Your task to perform on an android device: Go to notification settings Image 0: 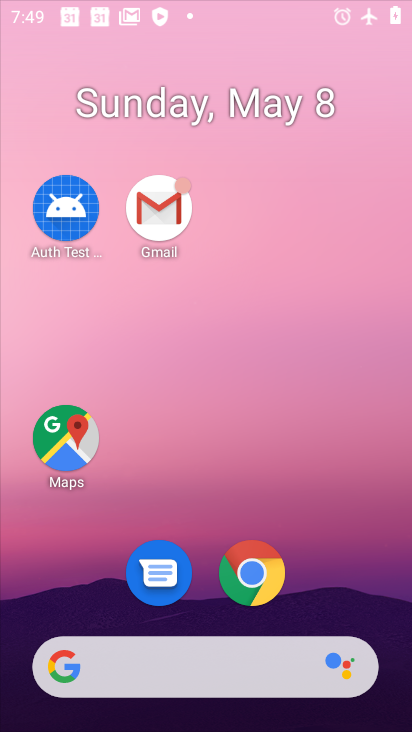
Step 0: click (47, 425)
Your task to perform on an android device: Go to notification settings Image 1: 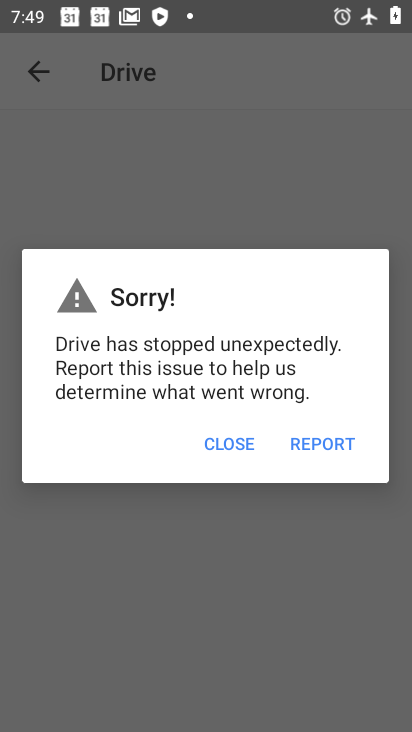
Step 1: click (69, 443)
Your task to perform on an android device: Go to notification settings Image 2: 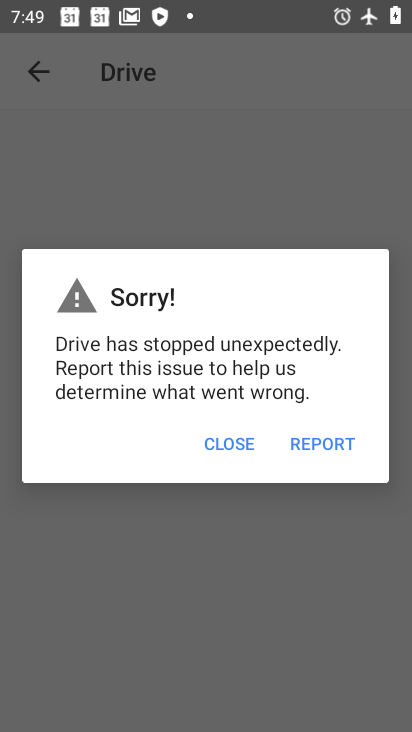
Step 2: click (230, 442)
Your task to perform on an android device: Go to notification settings Image 3: 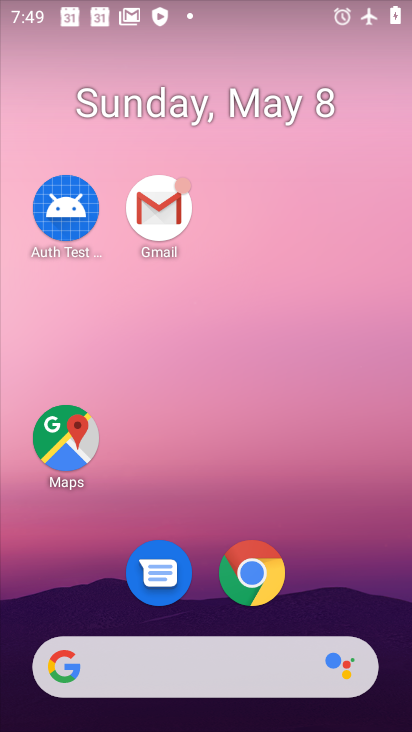
Step 3: click (226, 440)
Your task to perform on an android device: Go to notification settings Image 4: 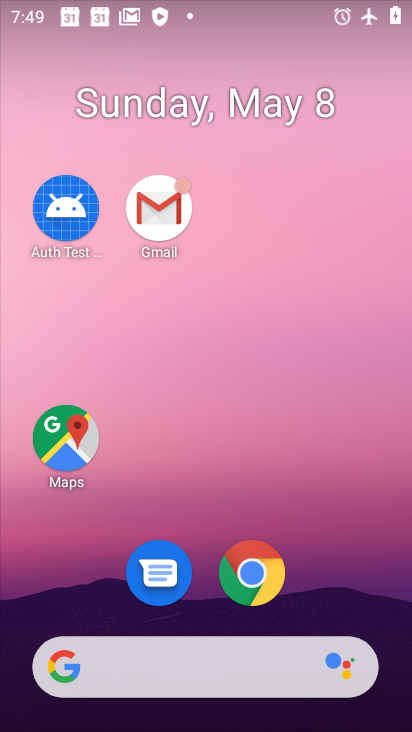
Step 4: click (37, 86)
Your task to perform on an android device: Go to notification settings Image 5: 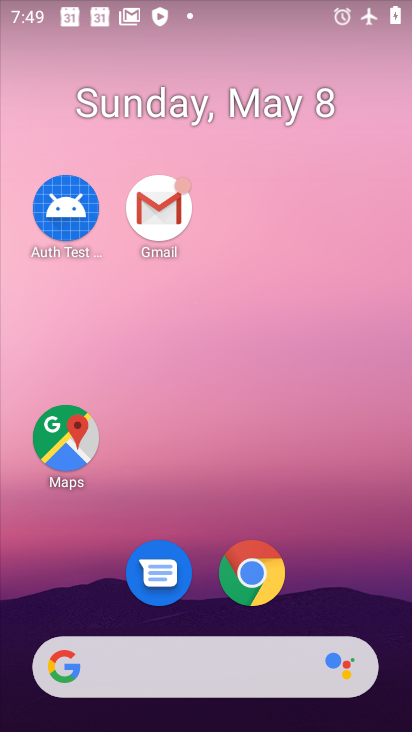
Step 5: click (214, 236)
Your task to perform on an android device: Go to notification settings Image 6: 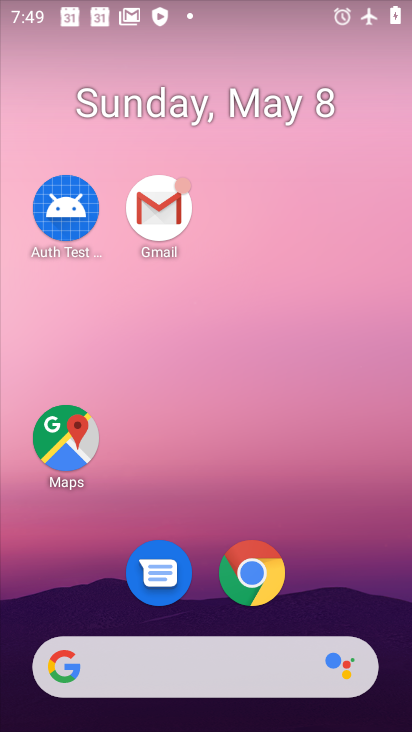
Step 6: drag from (271, 421) to (176, 120)
Your task to perform on an android device: Go to notification settings Image 7: 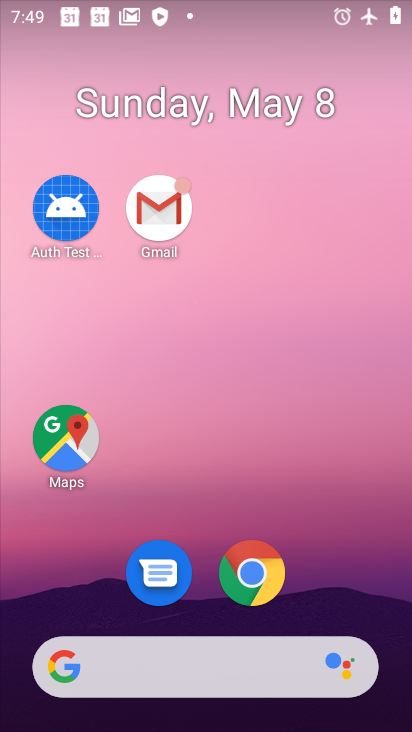
Step 7: drag from (328, 452) to (90, 11)
Your task to perform on an android device: Go to notification settings Image 8: 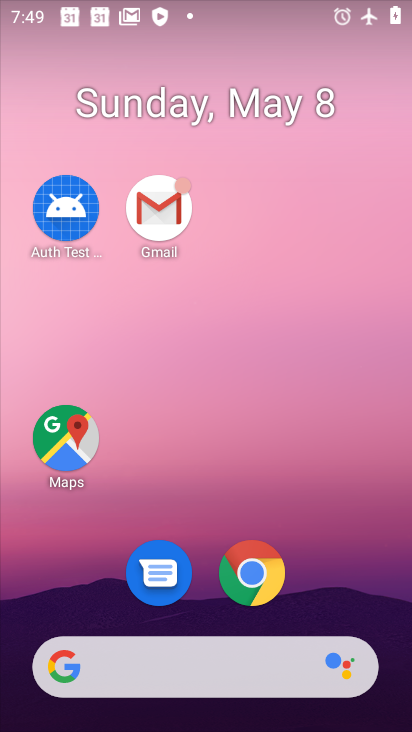
Step 8: drag from (235, 440) to (262, 187)
Your task to perform on an android device: Go to notification settings Image 9: 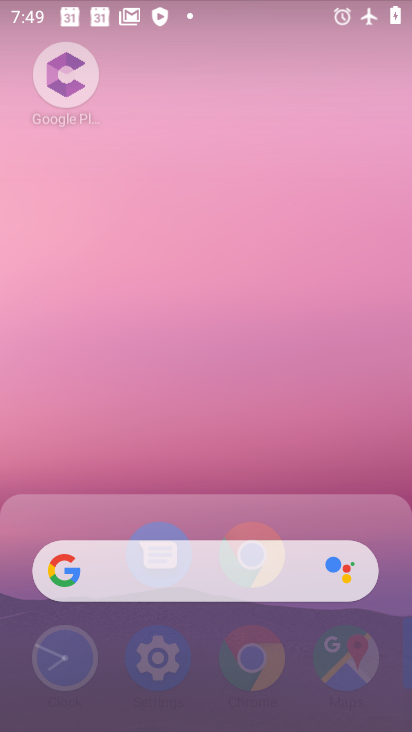
Step 9: drag from (320, 608) to (138, 282)
Your task to perform on an android device: Go to notification settings Image 10: 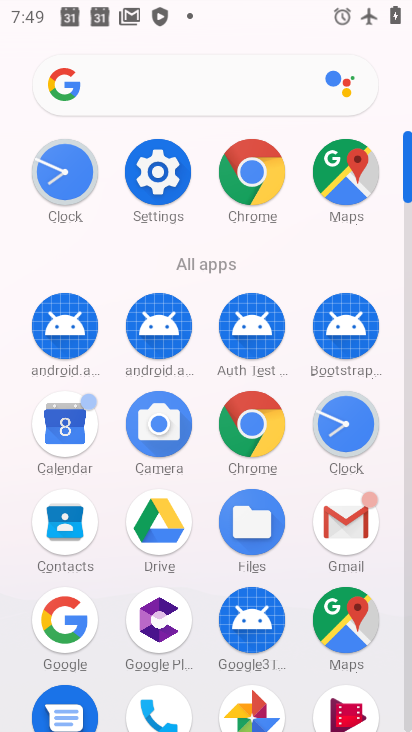
Step 10: click (152, 168)
Your task to perform on an android device: Go to notification settings Image 11: 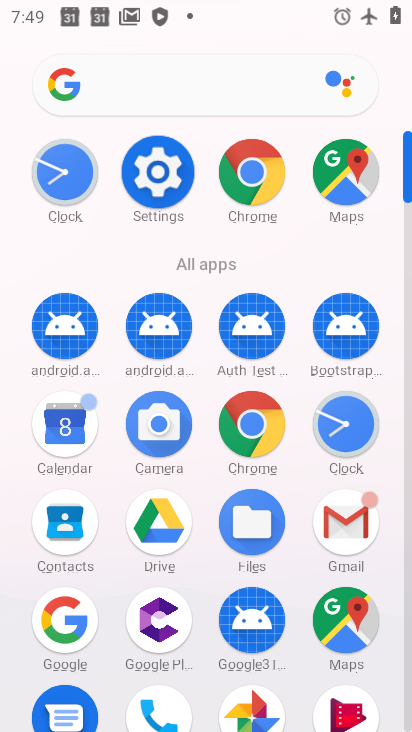
Step 11: click (152, 168)
Your task to perform on an android device: Go to notification settings Image 12: 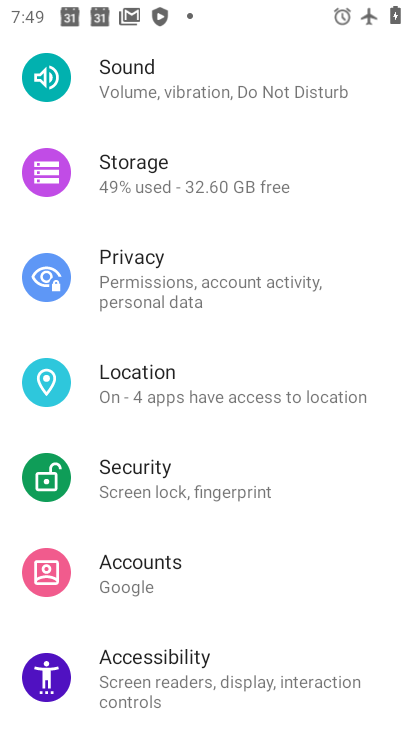
Step 12: click (153, 169)
Your task to perform on an android device: Go to notification settings Image 13: 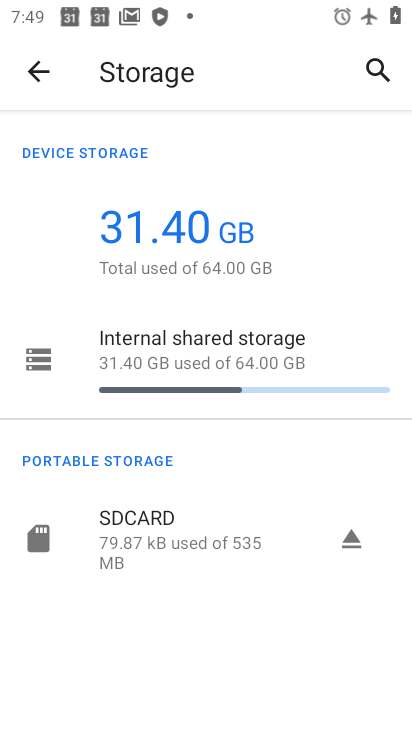
Step 13: click (27, 71)
Your task to perform on an android device: Go to notification settings Image 14: 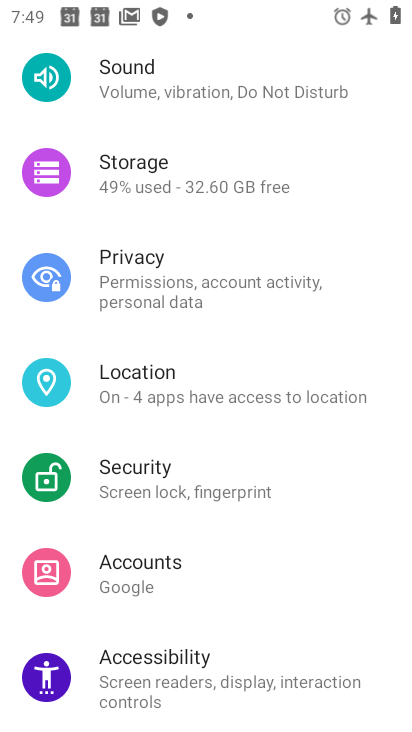
Step 14: click (36, 69)
Your task to perform on an android device: Go to notification settings Image 15: 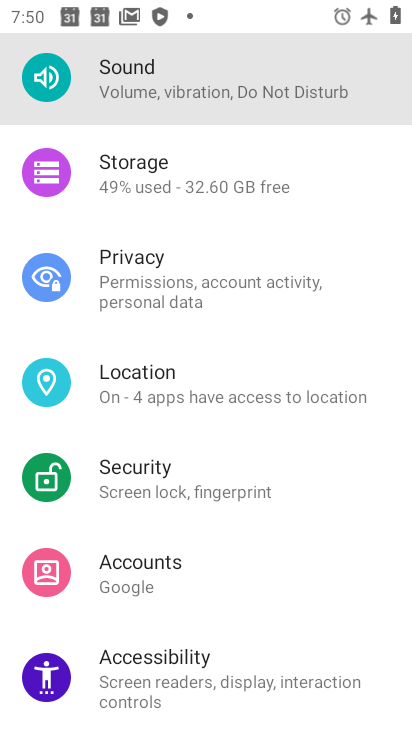
Step 15: task complete